Your task to perform on an android device: Open the web browser Image 0: 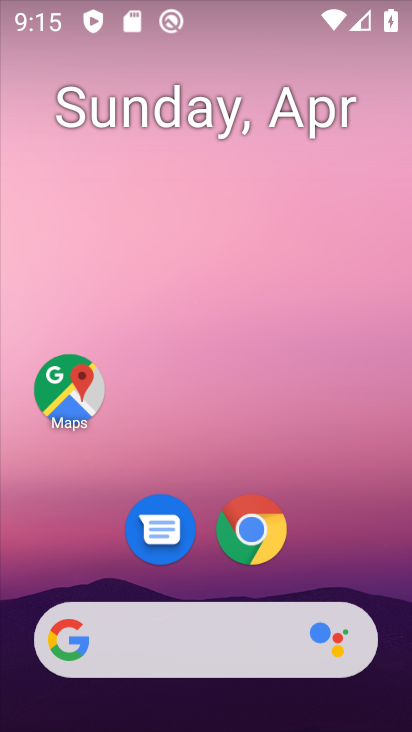
Step 0: click (250, 532)
Your task to perform on an android device: Open the web browser Image 1: 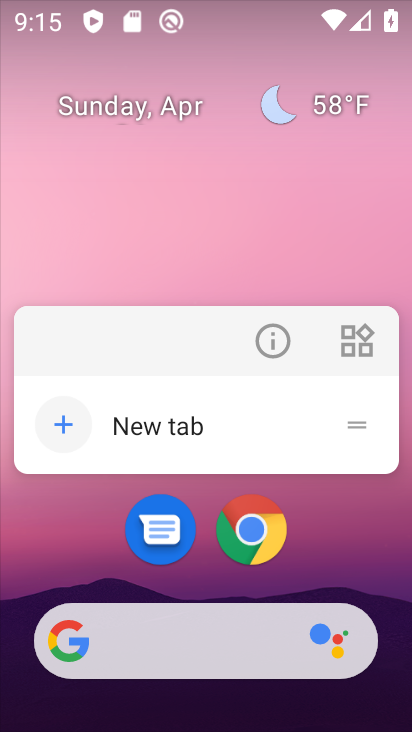
Step 1: click (250, 532)
Your task to perform on an android device: Open the web browser Image 2: 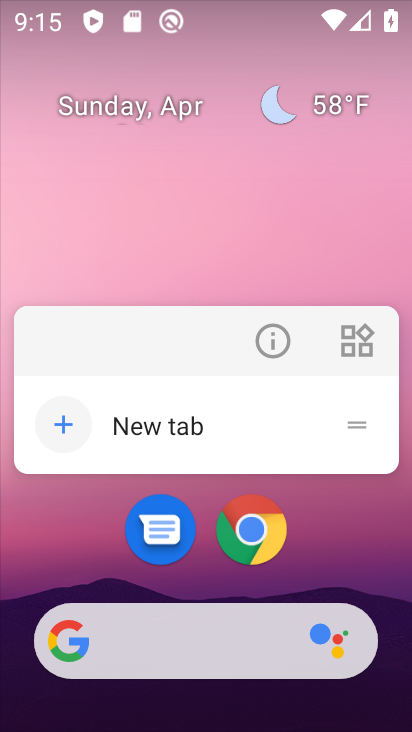
Step 2: click (255, 551)
Your task to perform on an android device: Open the web browser Image 3: 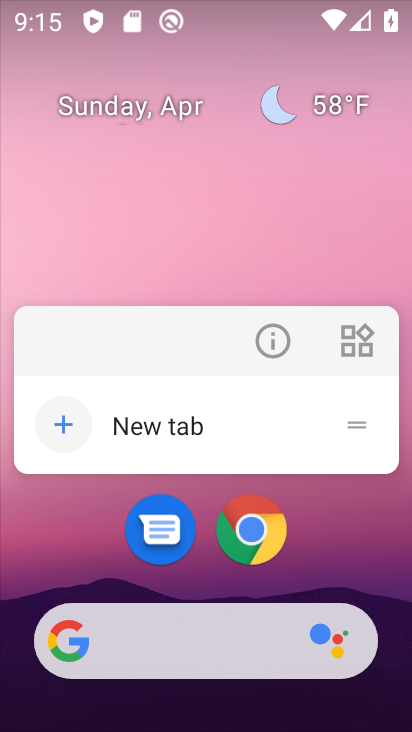
Step 3: click (268, 533)
Your task to perform on an android device: Open the web browser Image 4: 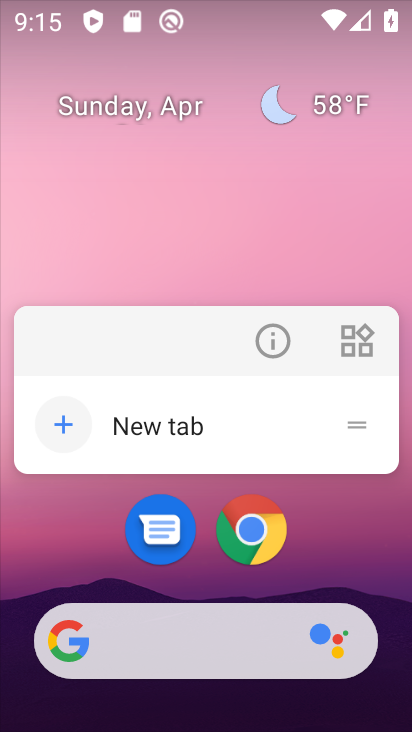
Step 4: click (265, 531)
Your task to perform on an android device: Open the web browser Image 5: 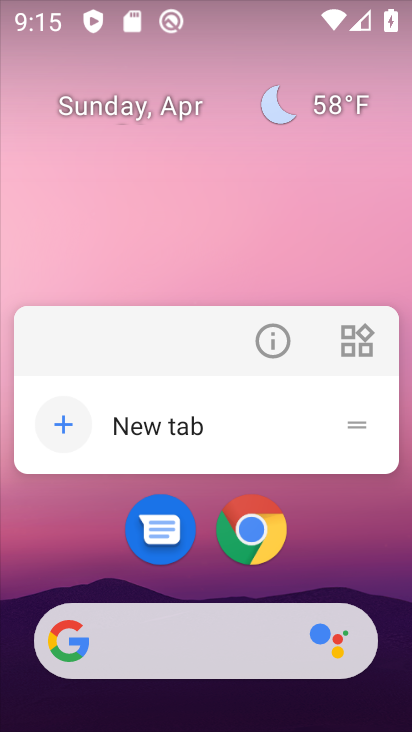
Step 5: click (259, 533)
Your task to perform on an android device: Open the web browser Image 6: 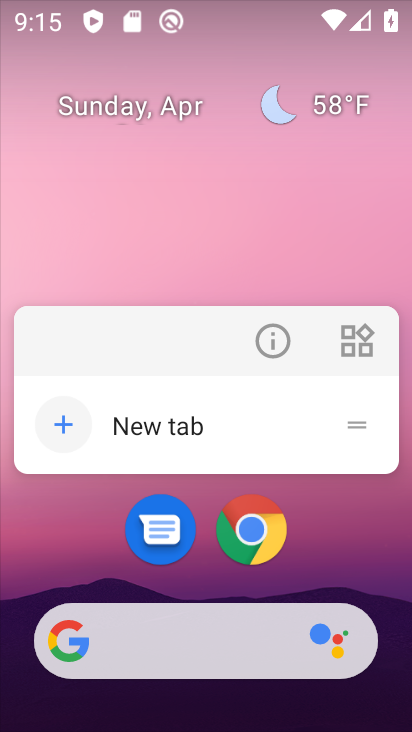
Step 6: click (268, 544)
Your task to perform on an android device: Open the web browser Image 7: 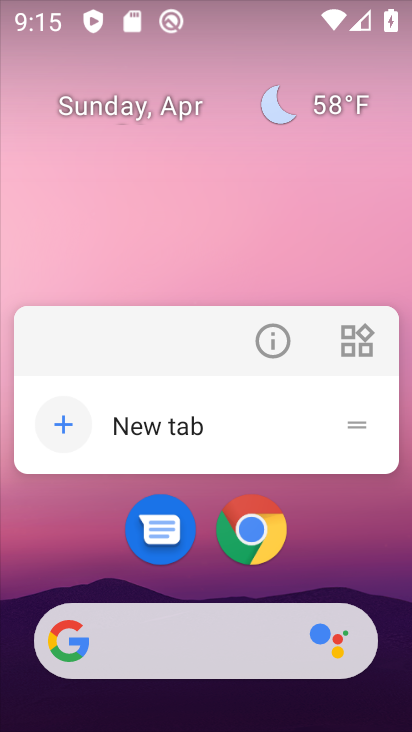
Step 7: click (258, 533)
Your task to perform on an android device: Open the web browser Image 8: 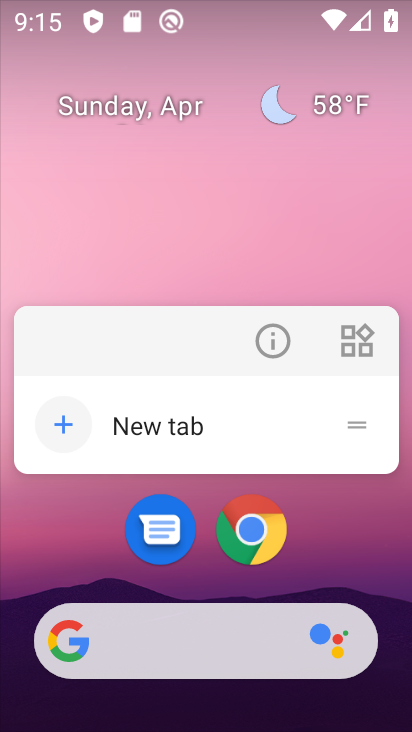
Step 8: click (245, 529)
Your task to perform on an android device: Open the web browser Image 9: 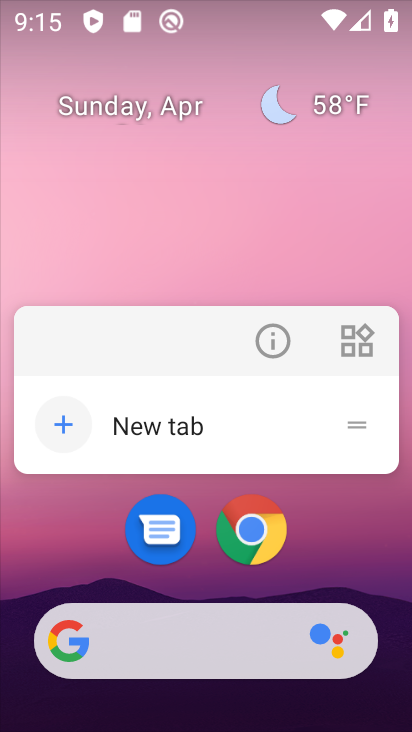
Step 9: click (251, 509)
Your task to perform on an android device: Open the web browser Image 10: 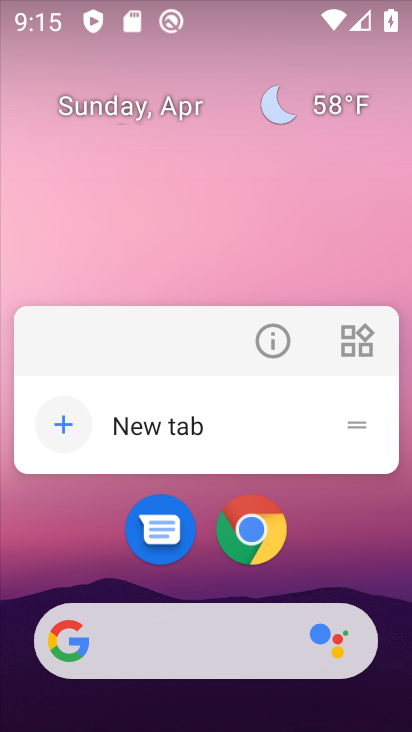
Step 10: click (265, 532)
Your task to perform on an android device: Open the web browser Image 11: 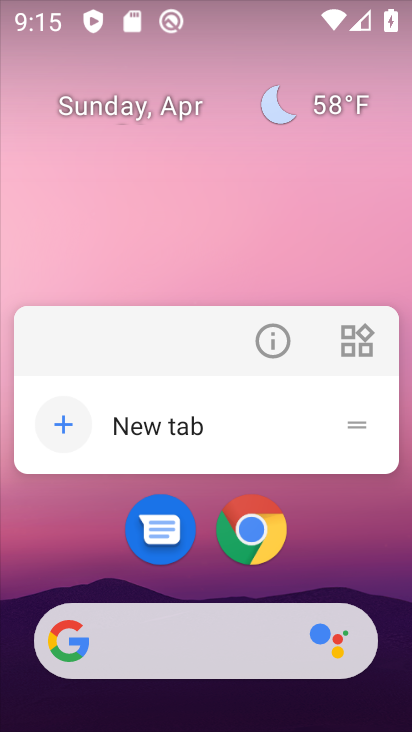
Step 11: click (270, 534)
Your task to perform on an android device: Open the web browser Image 12: 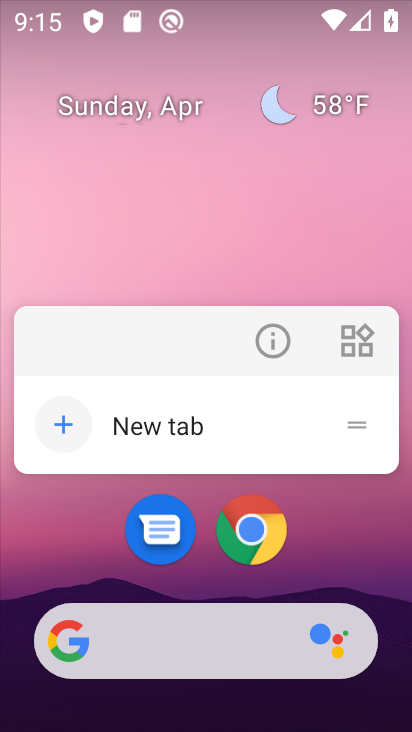
Step 12: click (275, 542)
Your task to perform on an android device: Open the web browser Image 13: 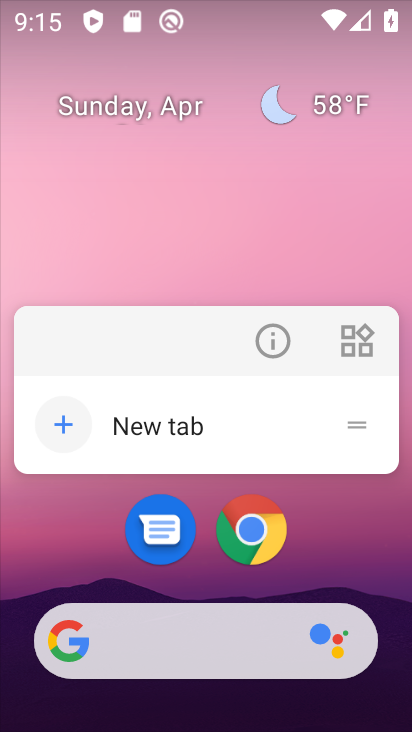
Step 13: click (275, 542)
Your task to perform on an android device: Open the web browser Image 14: 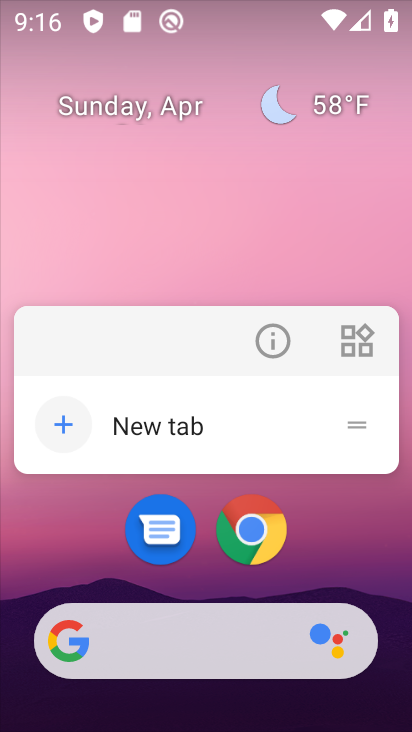
Step 14: click (266, 542)
Your task to perform on an android device: Open the web browser Image 15: 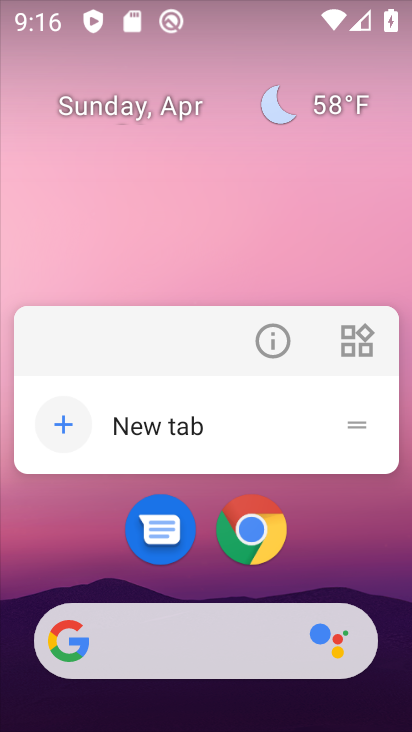
Step 15: click (240, 517)
Your task to perform on an android device: Open the web browser Image 16: 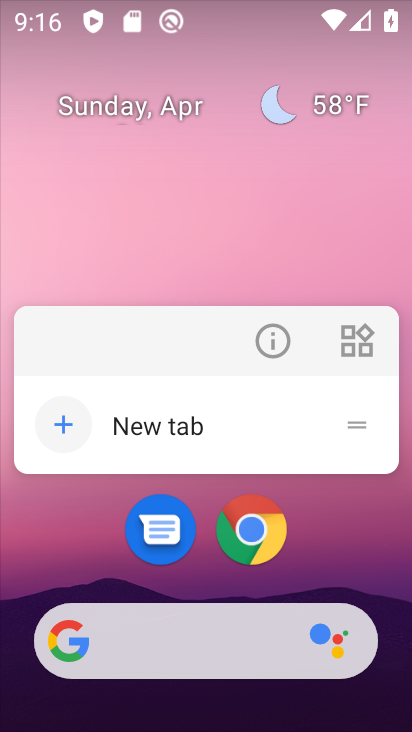
Step 16: click (256, 533)
Your task to perform on an android device: Open the web browser Image 17: 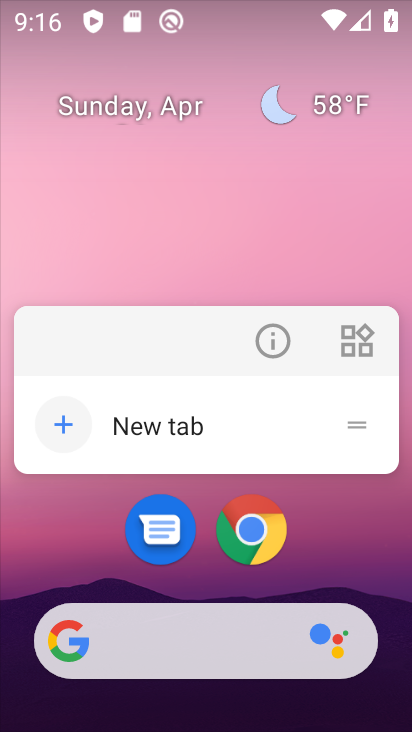
Step 17: click (268, 537)
Your task to perform on an android device: Open the web browser Image 18: 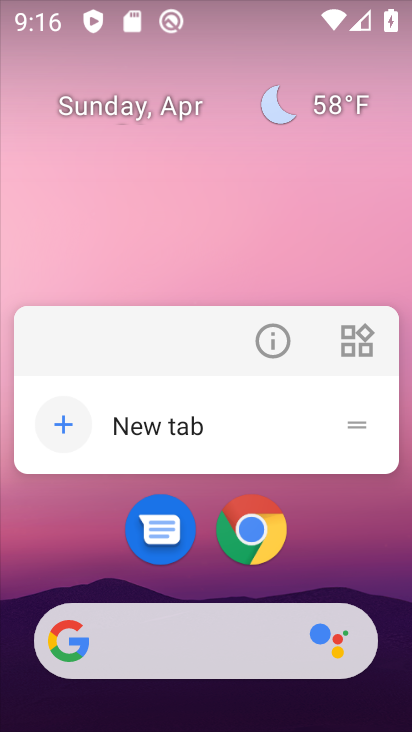
Step 18: click (280, 543)
Your task to perform on an android device: Open the web browser Image 19: 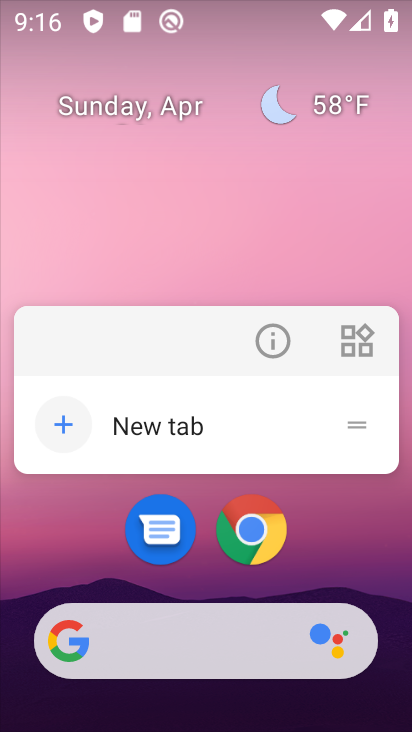
Step 19: click (274, 540)
Your task to perform on an android device: Open the web browser Image 20: 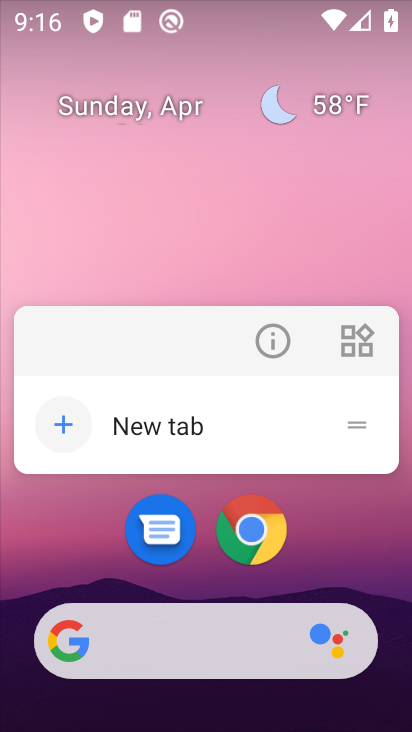
Step 20: click (253, 552)
Your task to perform on an android device: Open the web browser Image 21: 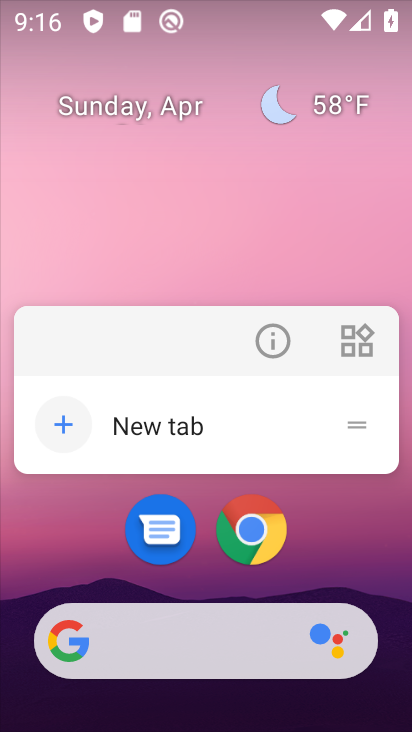
Step 21: drag from (273, 586) to (385, 0)
Your task to perform on an android device: Open the web browser Image 22: 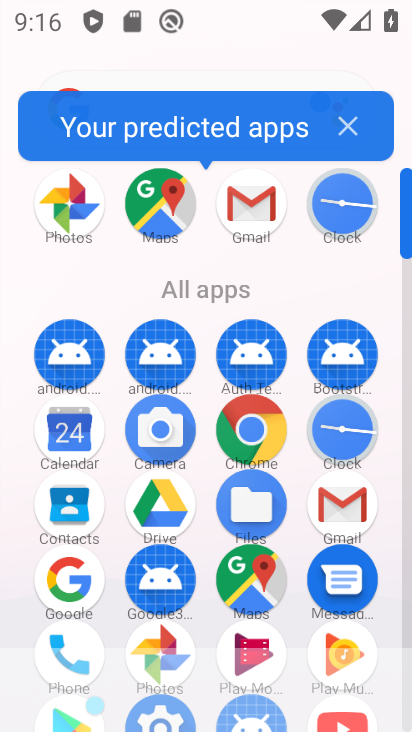
Step 22: click (250, 438)
Your task to perform on an android device: Open the web browser Image 23: 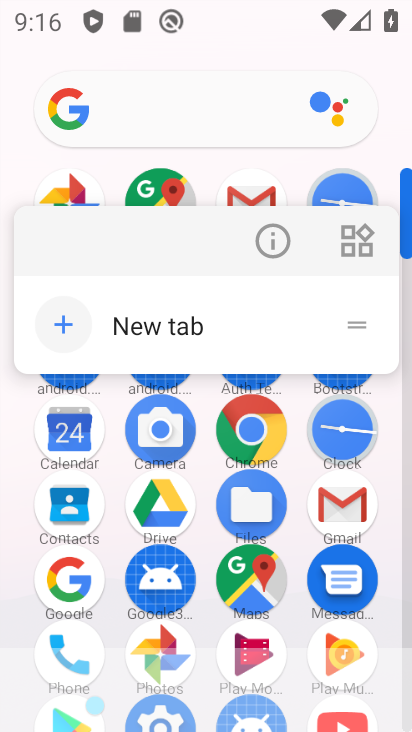
Step 23: click (259, 428)
Your task to perform on an android device: Open the web browser Image 24: 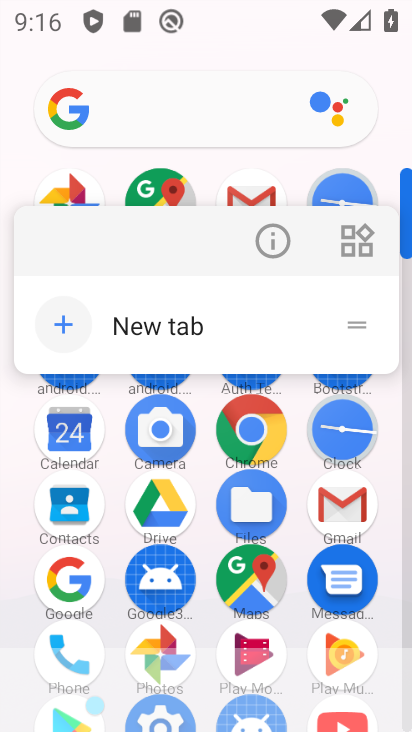
Step 24: click (273, 433)
Your task to perform on an android device: Open the web browser Image 25: 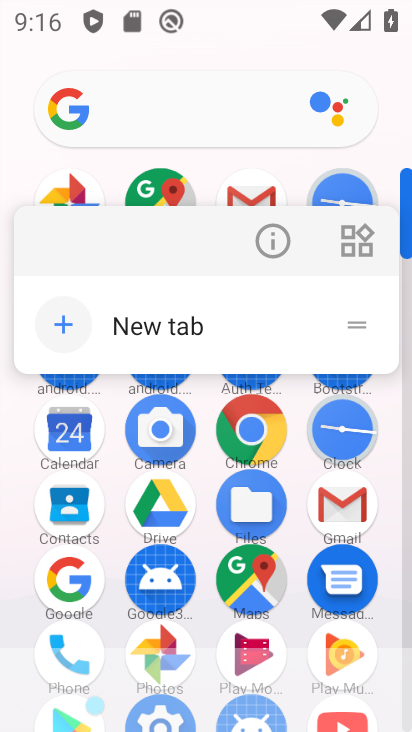
Step 25: click (261, 442)
Your task to perform on an android device: Open the web browser Image 26: 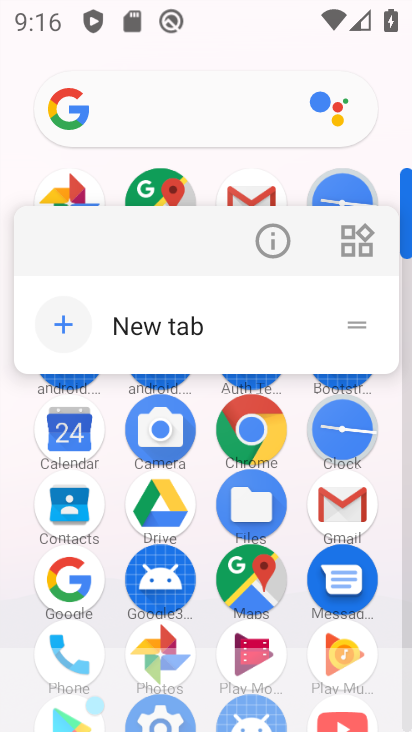
Step 26: click (244, 431)
Your task to perform on an android device: Open the web browser Image 27: 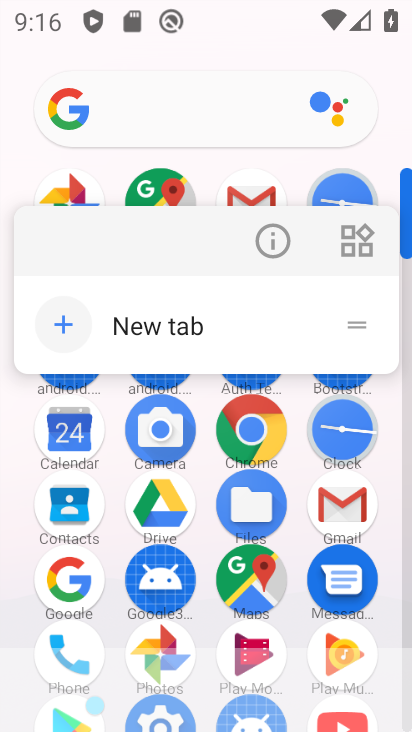
Step 27: click (227, 434)
Your task to perform on an android device: Open the web browser Image 28: 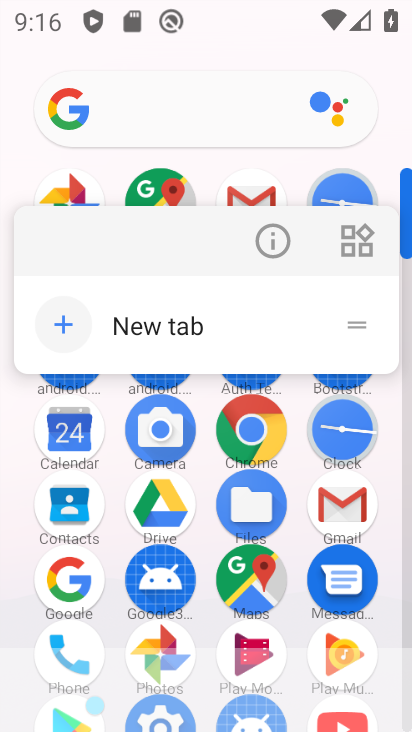
Step 28: click (264, 439)
Your task to perform on an android device: Open the web browser Image 29: 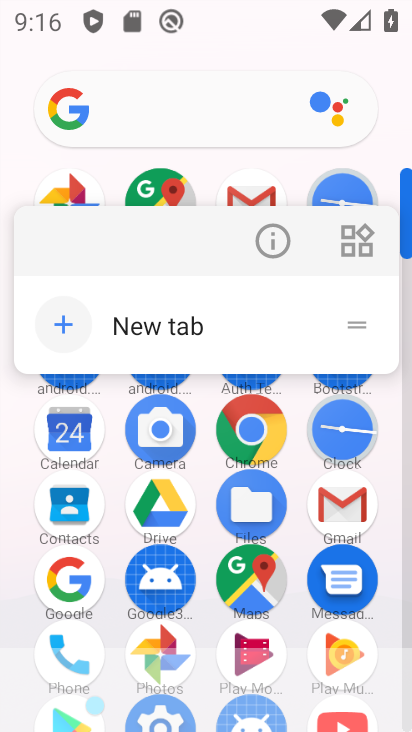
Step 29: click (276, 440)
Your task to perform on an android device: Open the web browser Image 30: 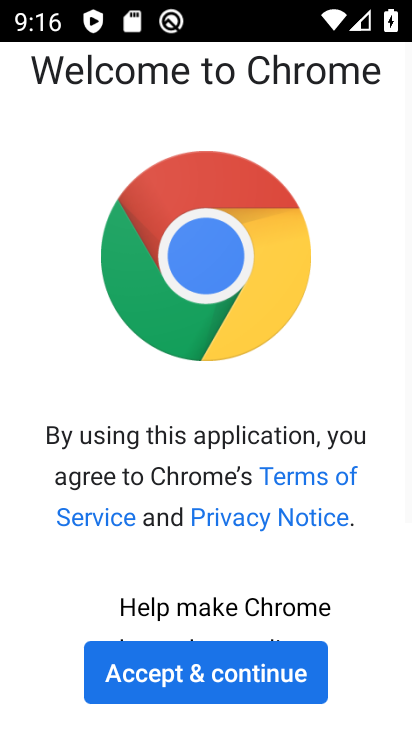
Step 30: click (237, 675)
Your task to perform on an android device: Open the web browser Image 31: 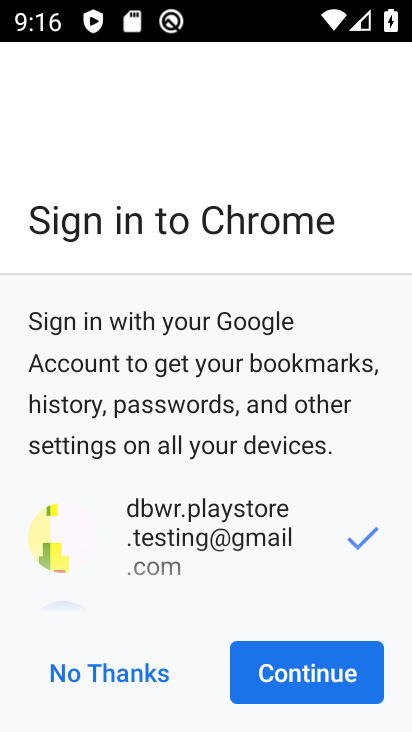
Step 31: click (341, 678)
Your task to perform on an android device: Open the web browser Image 32: 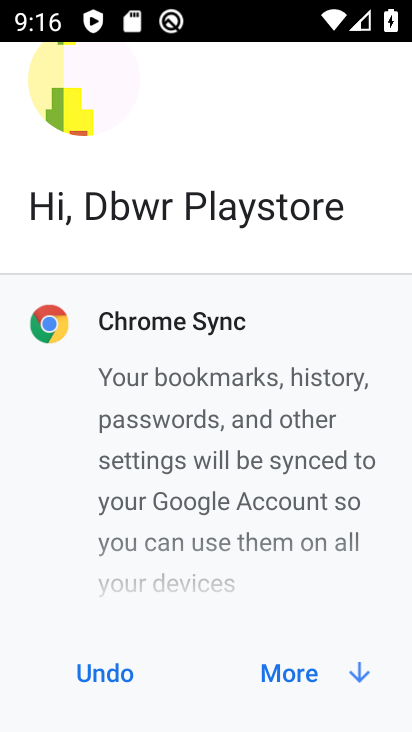
Step 32: click (337, 677)
Your task to perform on an android device: Open the web browser Image 33: 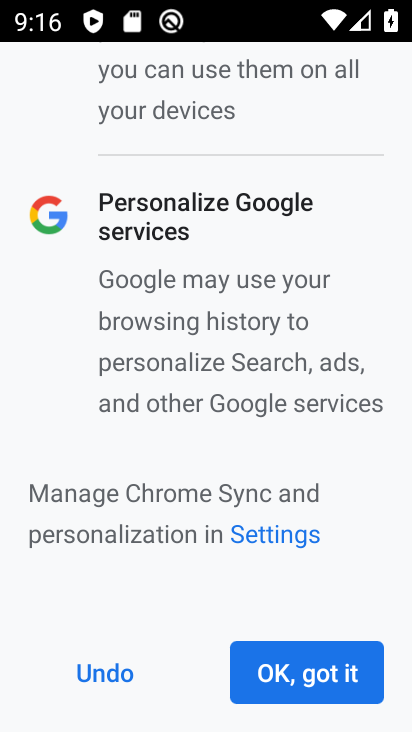
Step 33: click (337, 677)
Your task to perform on an android device: Open the web browser Image 34: 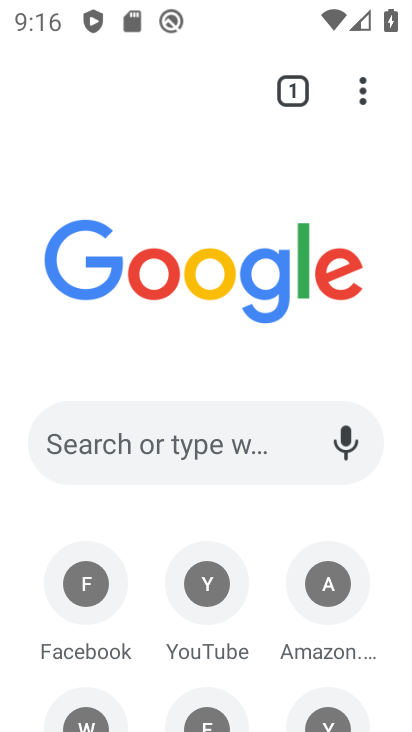
Step 34: task complete